Your task to perform on an android device: open app "McDonald's" Image 0: 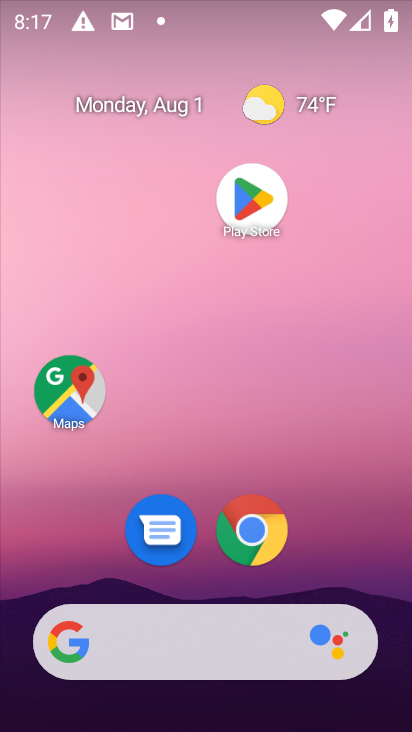
Step 0: click (269, 192)
Your task to perform on an android device: open app "McDonald's" Image 1: 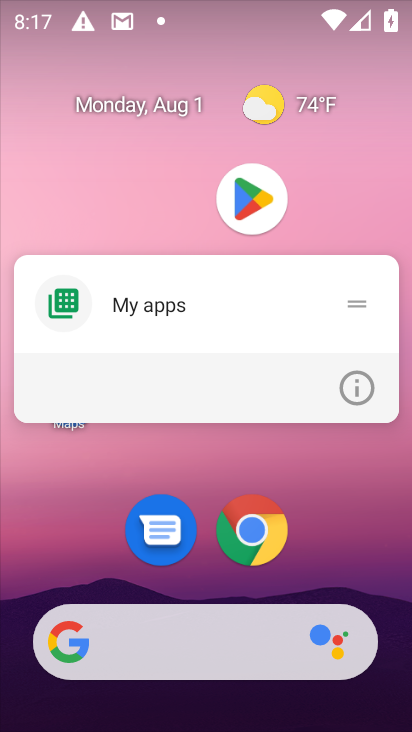
Step 1: click (237, 201)
Your task to perform on an android device: open app "McDonald's" Image 2: 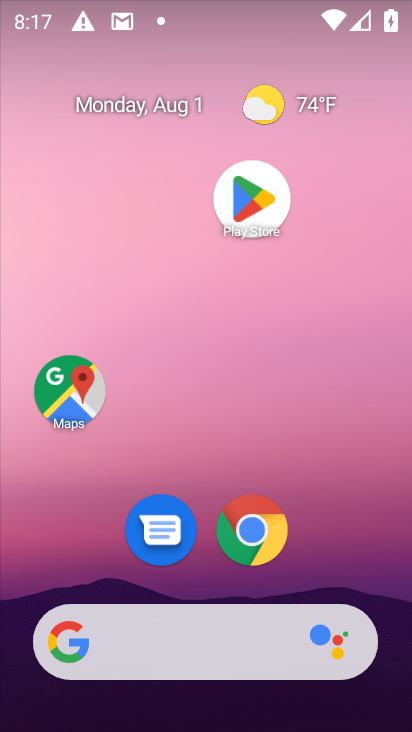
Step 2: click (237, 201)
Your task to perform on an android device: open app "McDonald's" Image 3: 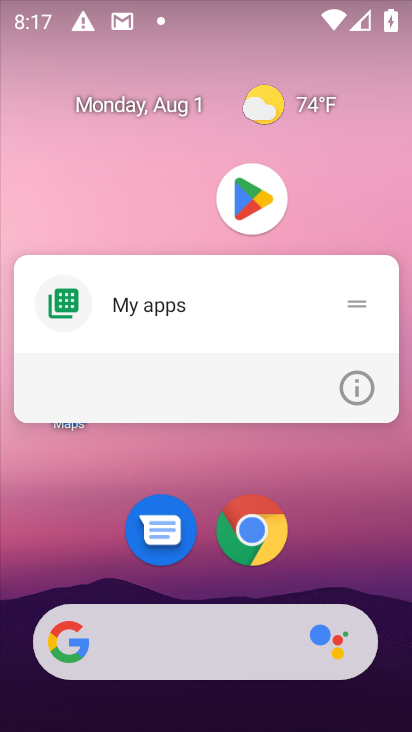
Step 3: click (242, 194)
Your task to perform on an android device: open app "McDonald's" Image 4: 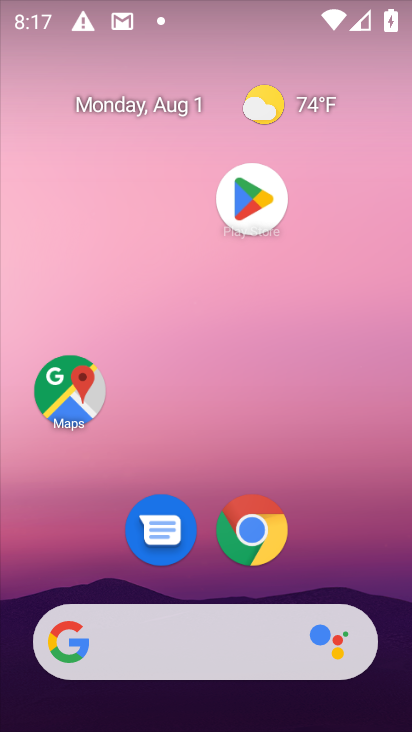
Step 4: click (244, 189)
Your task to perform on an android device: open app "McDonald's" Image 5: 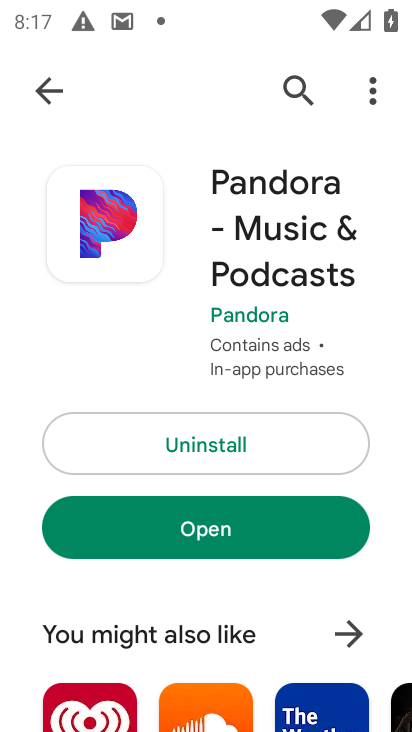
Step 5: click (308, 90)
Your task to perform on an android device: open app "McDonald's" Image 6: 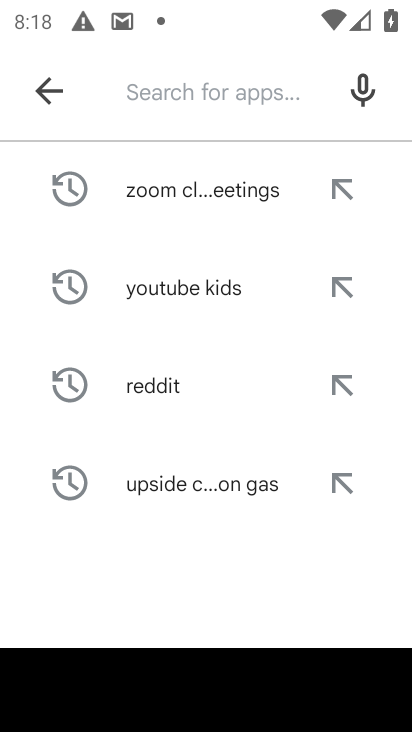
Step 6: click (275, 72)
Your task to perform on an android device: open app "McDonald's" Image 7: 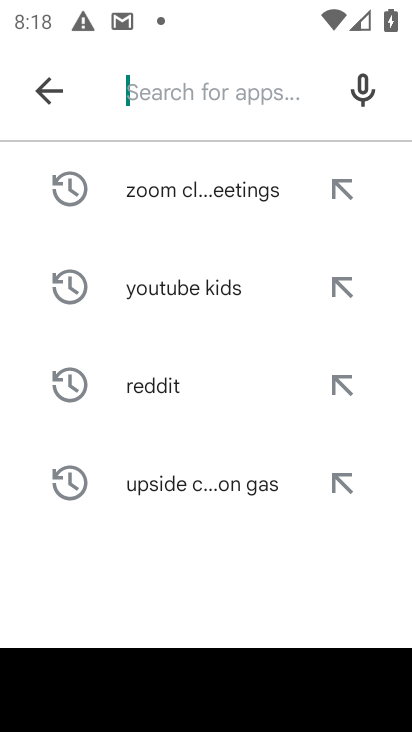
Step 7: type "McDonald's"
Your task to perform on an android device: open app "McDonald's" Image 8: 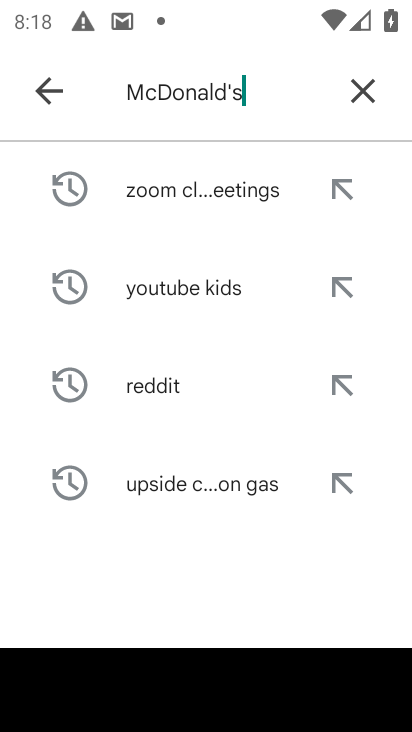
Step 8: type ""
Your task to perform on an android device: open app "McDonald's" Image 9: 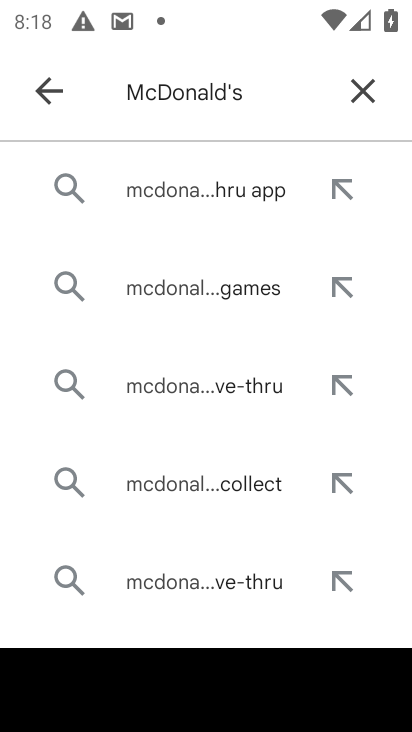
Step 9: type ""
Your task to perform on an android device: open app "McDonald's" Image 10: 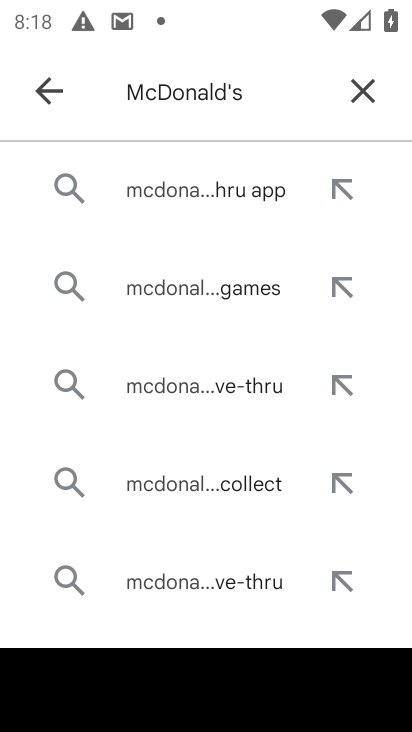
Step 10: press enter
Your task to perform on an android device: open app "McDonald's" Image 11: 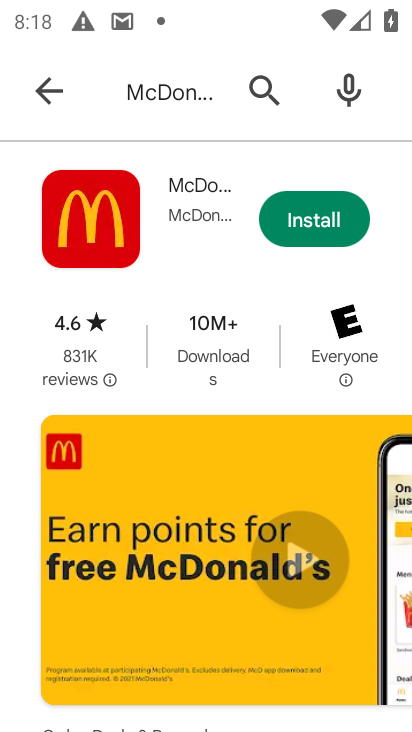
Step 11: task complete